Your task to perform on an android device: Go to eBay Image 0: 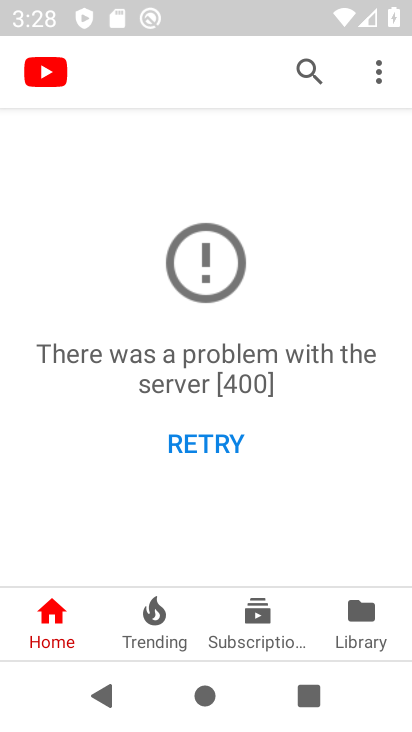
Step 0: press home button
Your task to perform on an android device: Go to eBay Image 1: 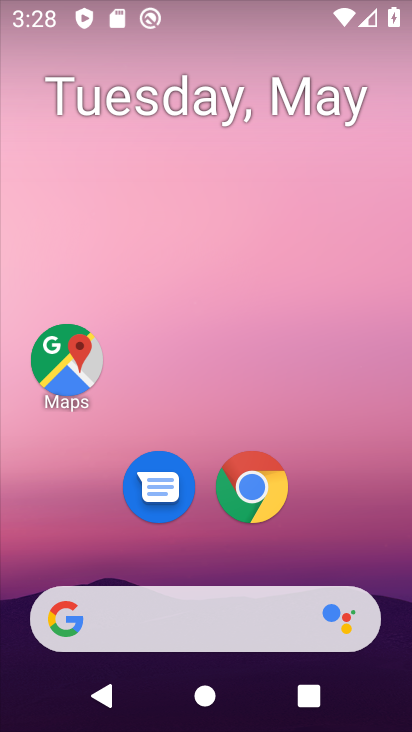
Step 1: click (255, 474)
Your task to perform on an android device: Go to eBay Image 2: 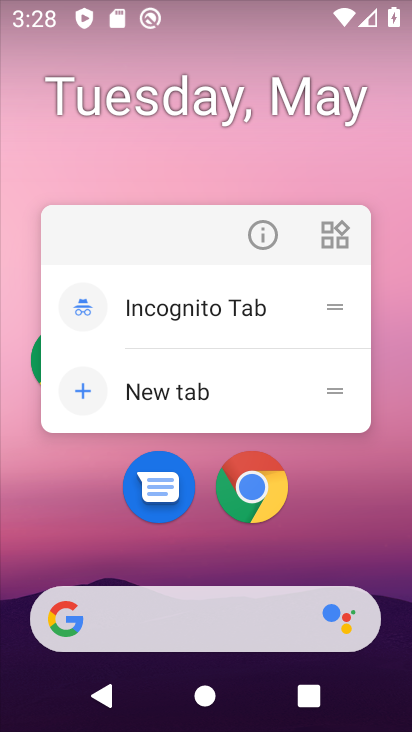
Step 2: click (256, 474)
Your task to perform on an android device: Go to eBay Image 3: 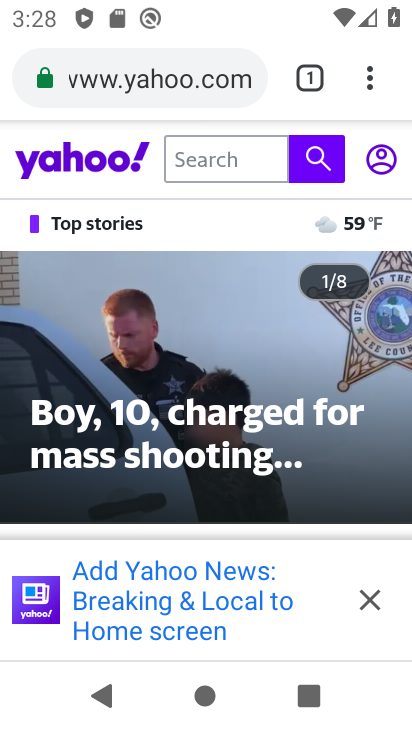
Step 3: click (216, 73)
Your task to perform on an android device: Go to eBay Image 4: 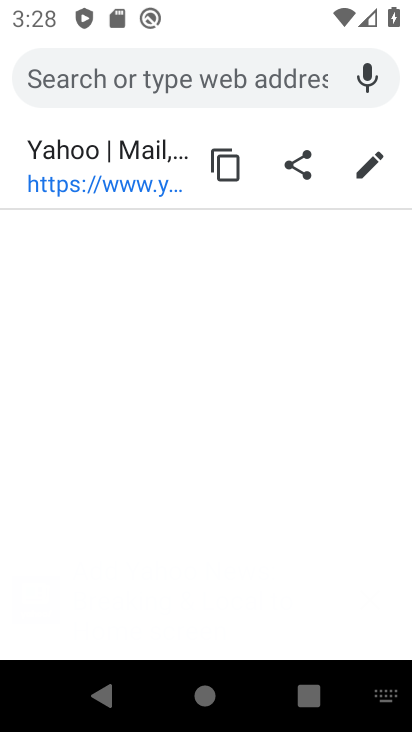
Step 4: type "eBay"
Your task to perform on an android device: Go to eBay Image 5: 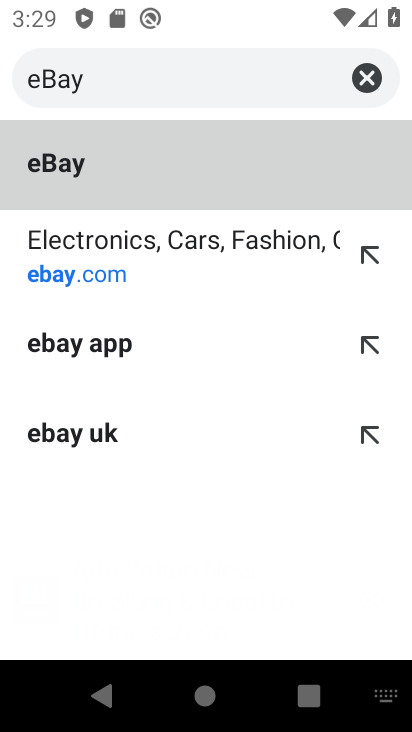
Step 5: click (73, 157)
Your task to perform on an android device: Go to eBay Image 6: 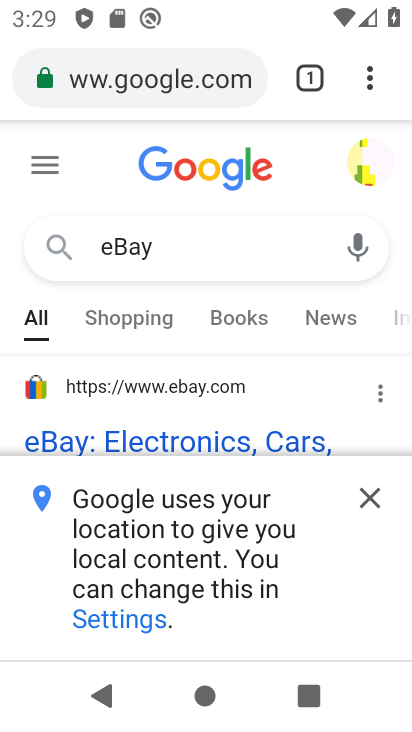
Step 6: click (374, 495)
Your task to perform on an android device: Go to eBay Image 7: 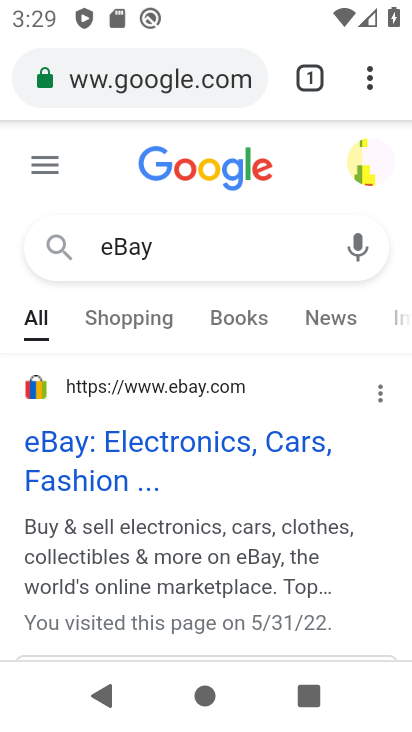
Step 7: task complete